Your task to perform on an android device: Open Youtube and go to the subscriptions tab Image 0: 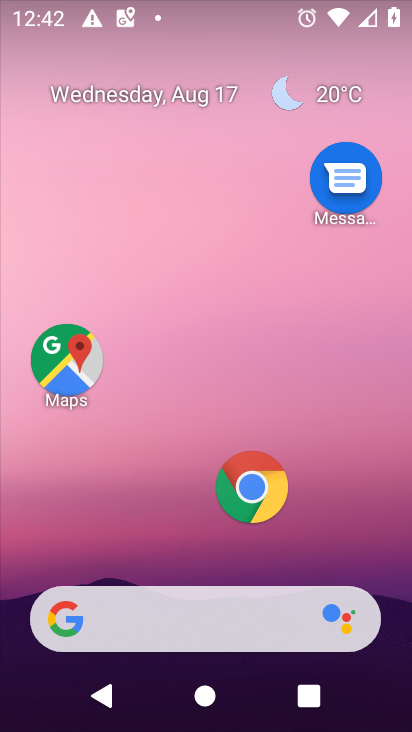
Step 0: drag from (113, 556) to (164, 85)
Your task to perform on an android device: Open Youtube and go to the subscriptions tab Image 1: 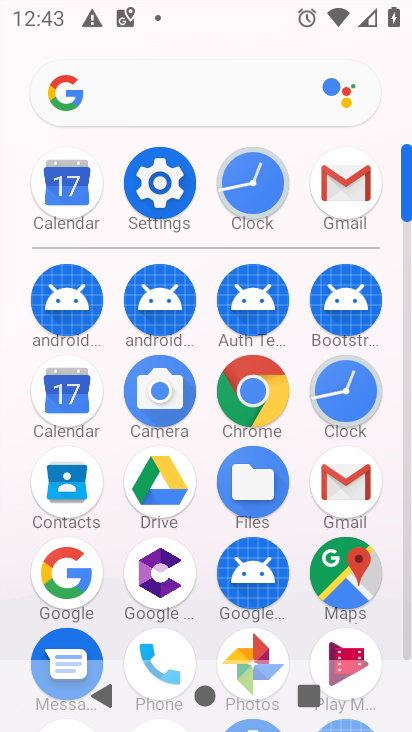
Step 1: drag from (159, 546) to (175, 102)
Your task to perform on an android device: Open Youtube and go to the subscriptions tab Image 2: 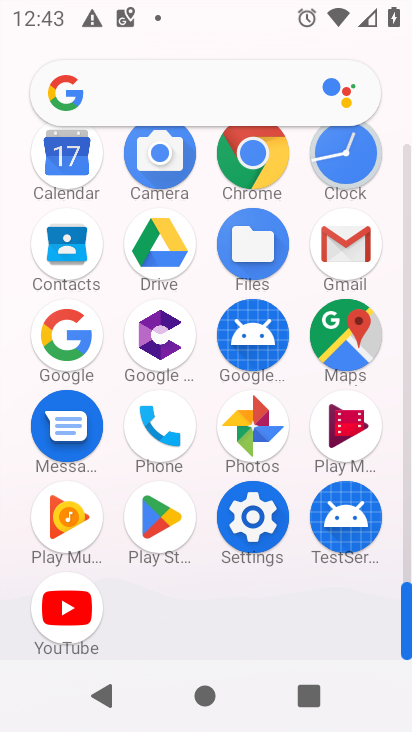
Step 2: click (58, 620)
Your task to perform on an android device: Open Youtube and go to the subscriptions tab Image 3: 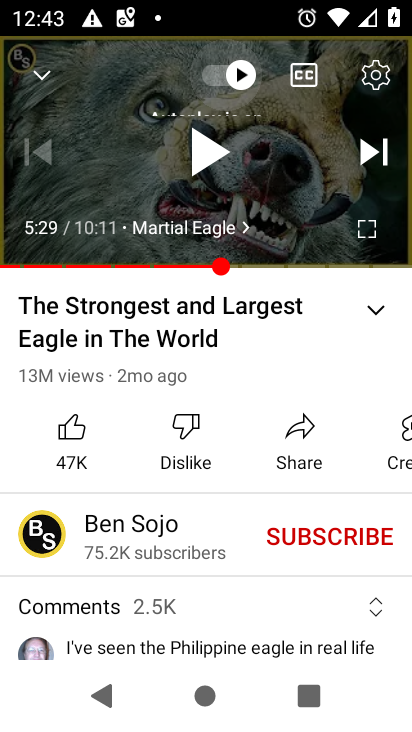
Step 3: click (41, 74)
Your task to perform on an android device: Open Youtube and go to the subscriptions tab Image 4: 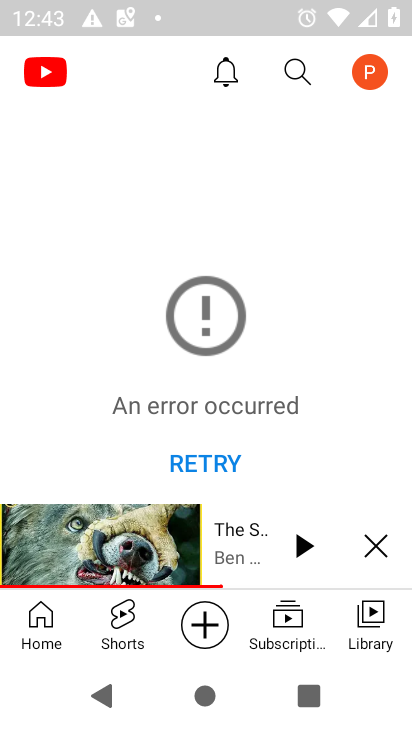
Step 4: click (281, 637)
Your task to perform on an android device: Open Youtube and go to the subscriptions tab Image 5: 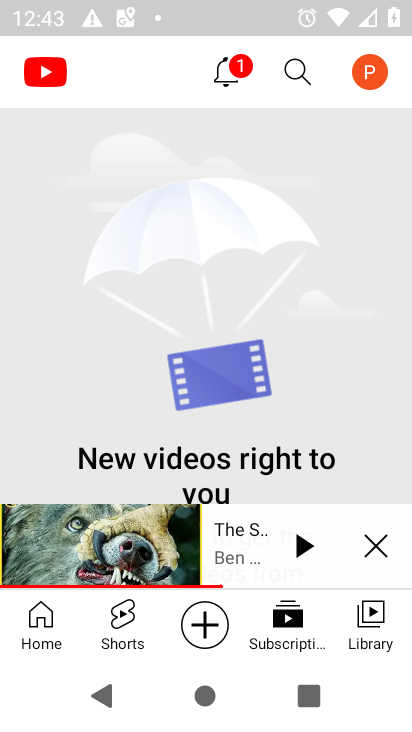
Step 5: task complete